Your task to perform on an android device: remove spam from my inbox in the gmail app Image 0: 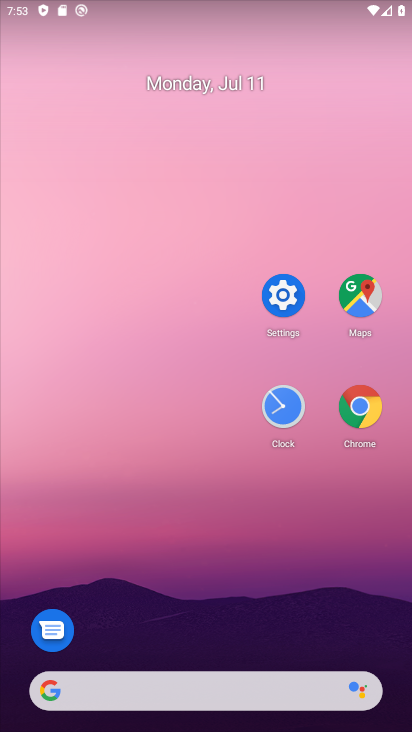
Step 0: drag from (231, 599) to (217, 152)
Your task to perform on an android device: remove spam from my inbox in the gmail app Image 1: 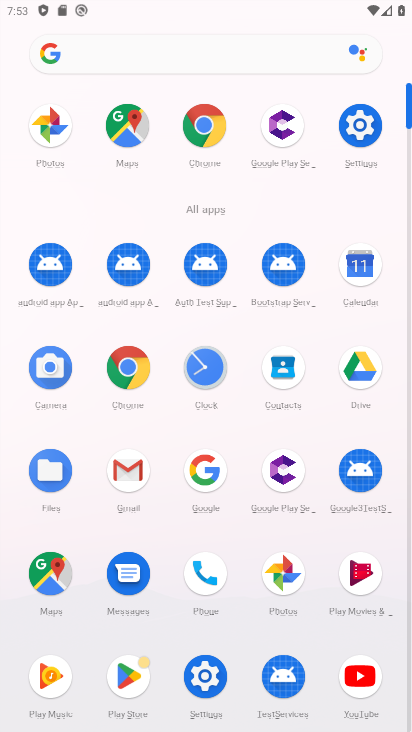
Step 1: drag from (124, 470) to (244, 487)
Your task to perform on an android device: remove spam from my inbox in the gmail app Image 2: 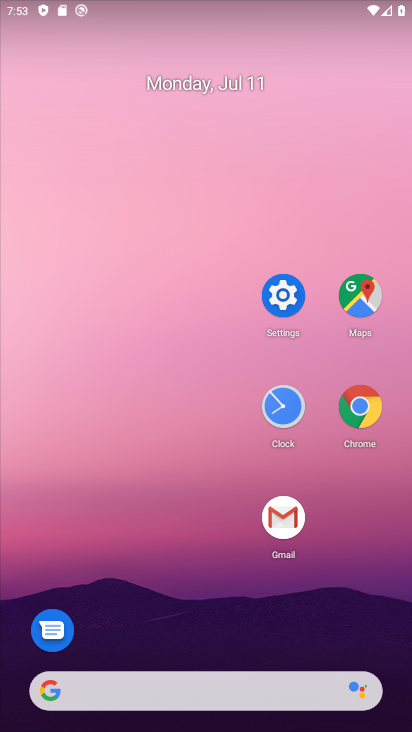
Step 2: click (268, 521)
Your task to perform on an android device: remove spam from my inbox in the gmail app Image 3: 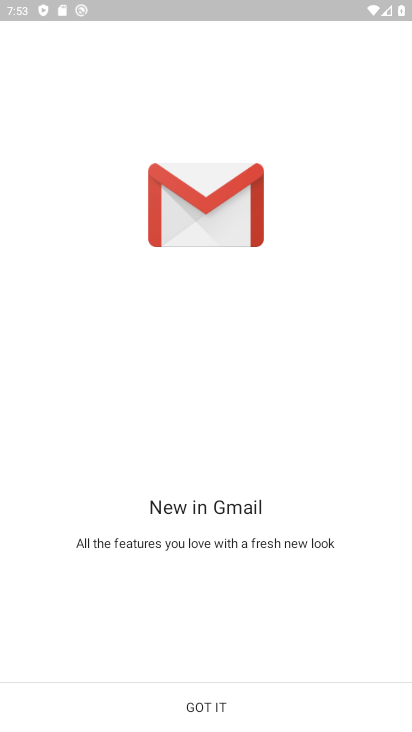
Step 3: click (203, 708)
Your task to perform on an android device: remove spam from my inbox in the gmail app Image 4: 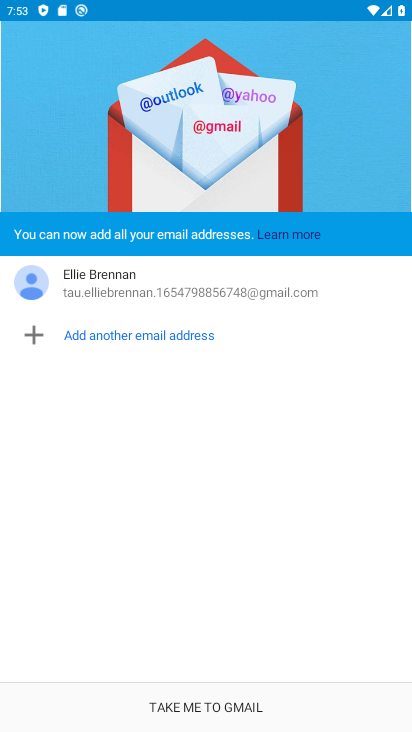
Step 4: click (224, 694)
Your task to perform on an android device: remove spam from my inbox in the gmail app Image 5: 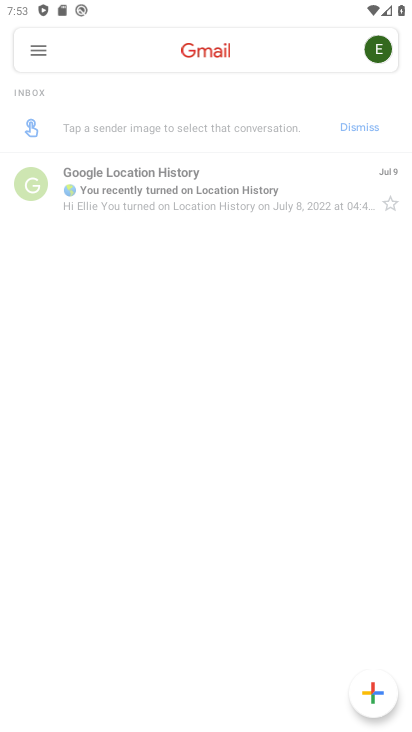
Step 5: click (53, 70)
Your task to perform on an android device: remove spam from my inbox in the gmail app Image 6: 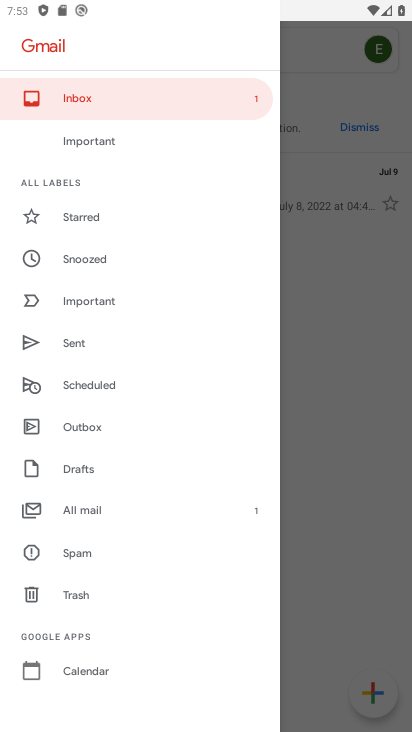
Step 6: click (90, 564)
Your task to perform on an android device: remove spam from my inbox in the gmail app Image 7: 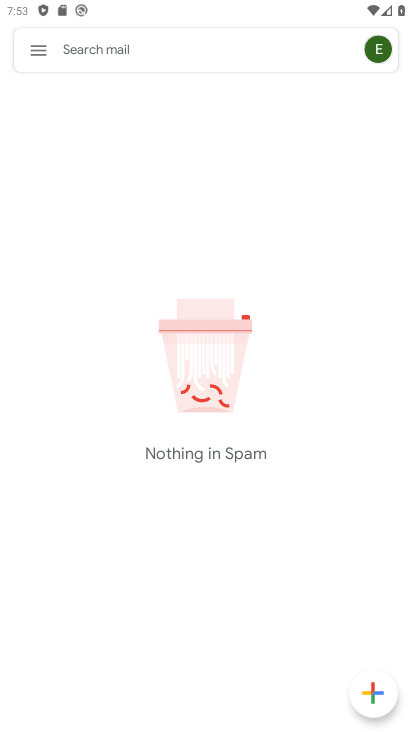
Step 7: task complete